Your task to perform on an android device: Open Chrome and go to the settings page Image 0: 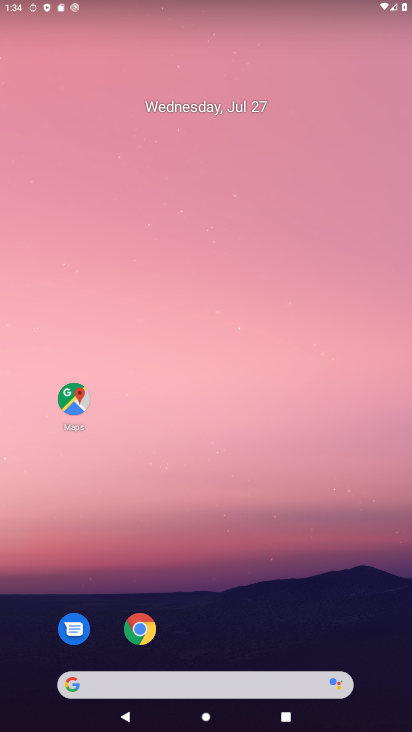
Step 0: press home button
Your task to perform on an android device: Open Chrome and go to the settings page Image 1: 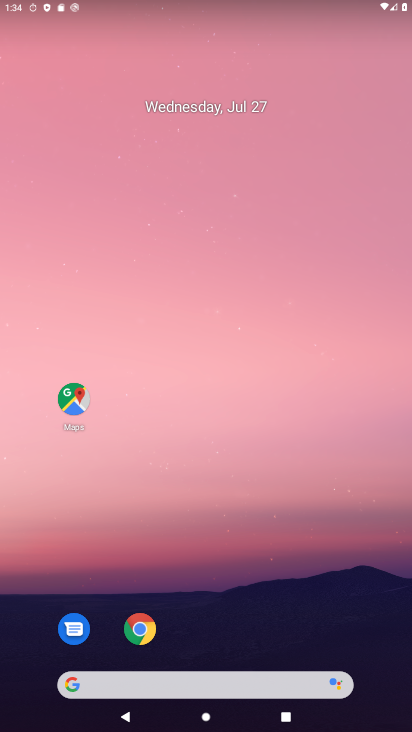
Step 1: drag from (232, 642) to (266, 191)
Your task to perform on an android device: Open Chrome and go to the settings page Image 2: 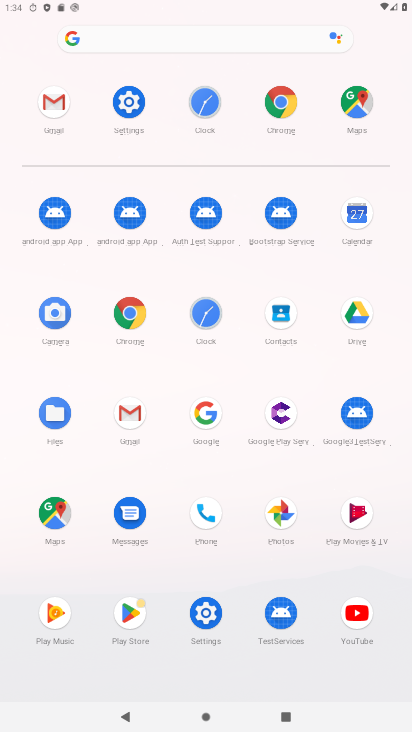
Step 2: click (282, 109)
Your task to perform on an android device: Open Chrome and go to the settings page Image 3: 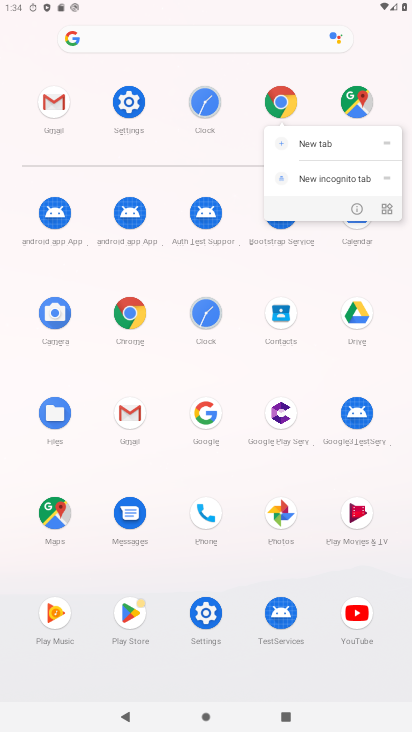
Step 3: click (273, 102)
Your task to perform on an android device: Open Chrome and go to the settings page Image 4: 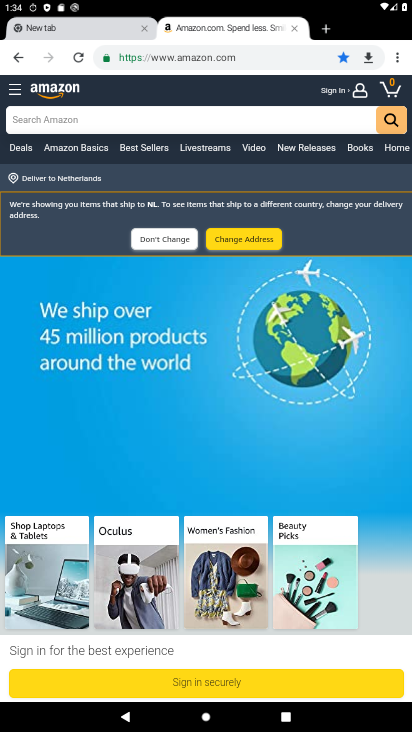
Step 4: task complete